Your task to perform on an android device: show emergency info Image 0: 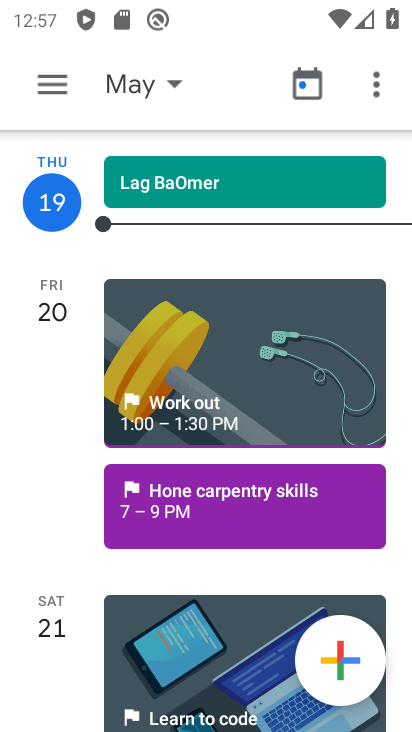
Step 0: press home button
Your task to perform on an android device: show emergency info Image 1: 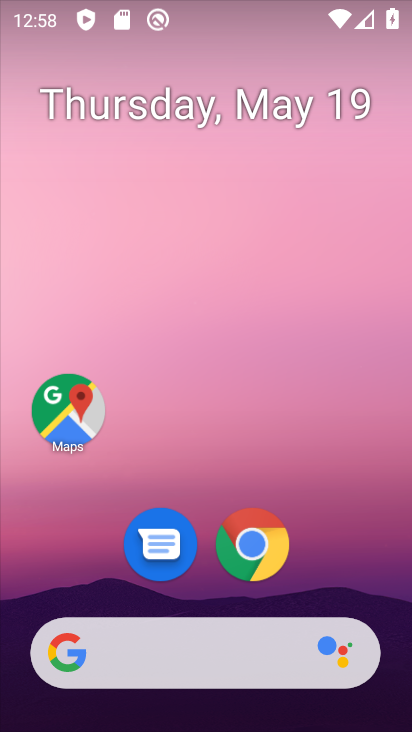
Step 1: drag from (221, 689) to (2, 212)
Your task to perform on an android device: show emergency info Image 2: 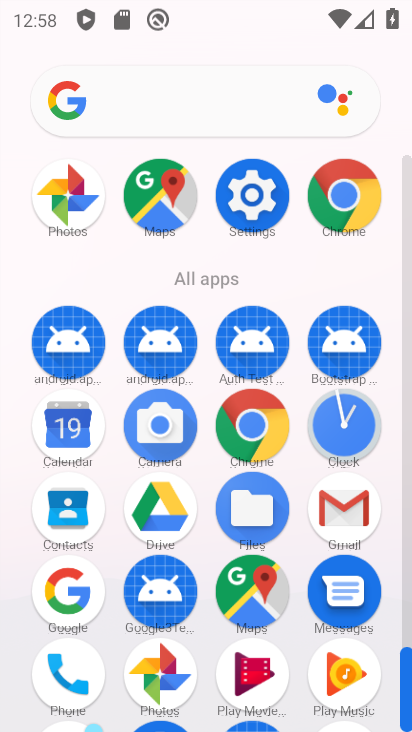
Step 2: click (259, 223)
Your task to perform on an android device: show emergency info Image 3: 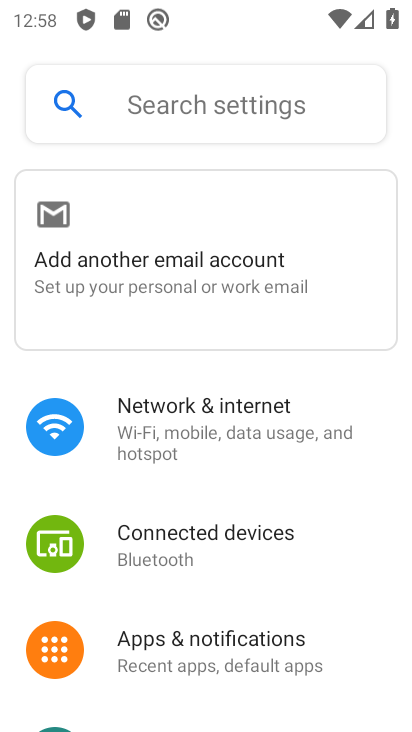
Step 3: click (180, 108)
Your task to perform on an android device: show emergency info Image 4: 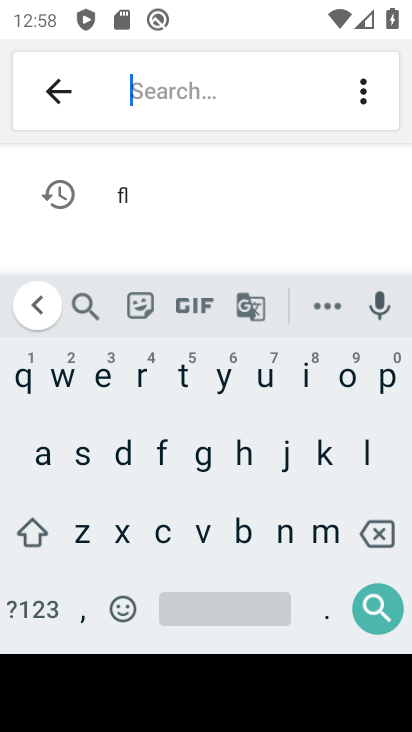
Step 4: click (102, 381)
Your task to perform on an android device: show emergency info Image 5: 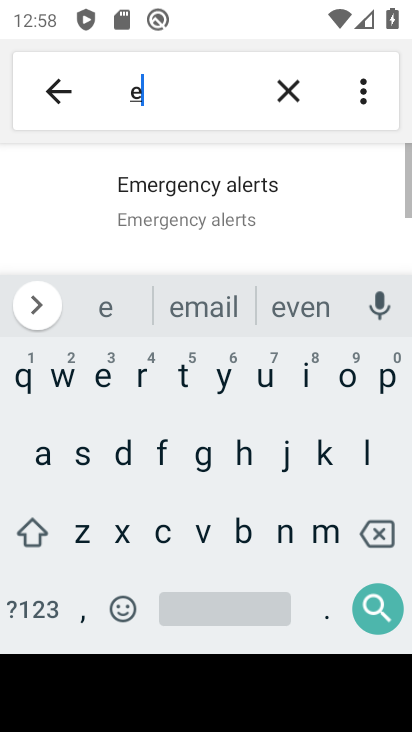
Step 5: click (320, 541)
Your task to perform on an android device: show emergency info Image 6: 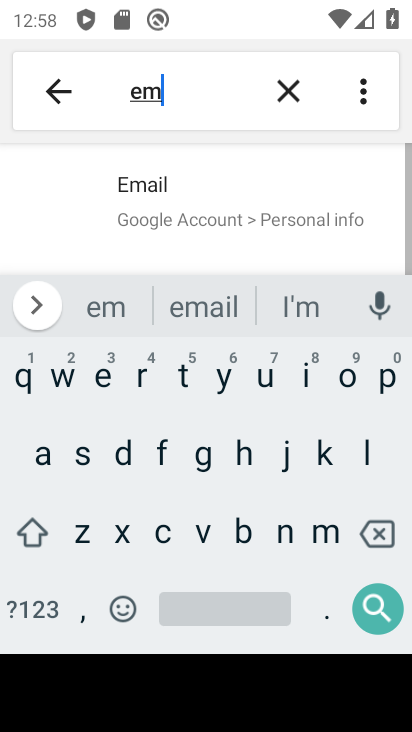
Step 6: click (105, 379)
Your task to perform on an android device: show emergency info Image 7: 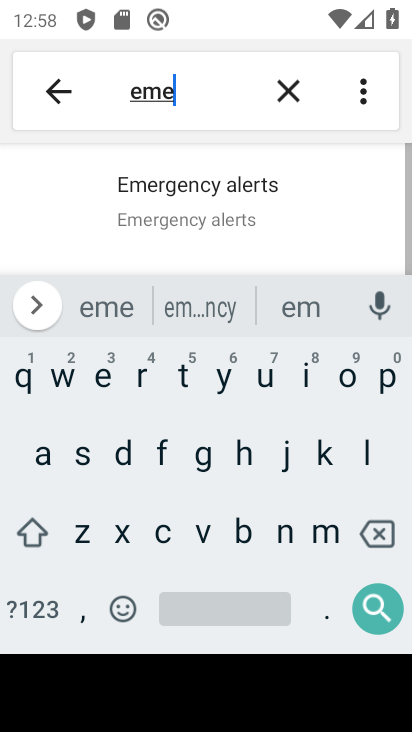
Step 7: click (140, 373)
Your task to perform on an android device: show emergency info Image 8: 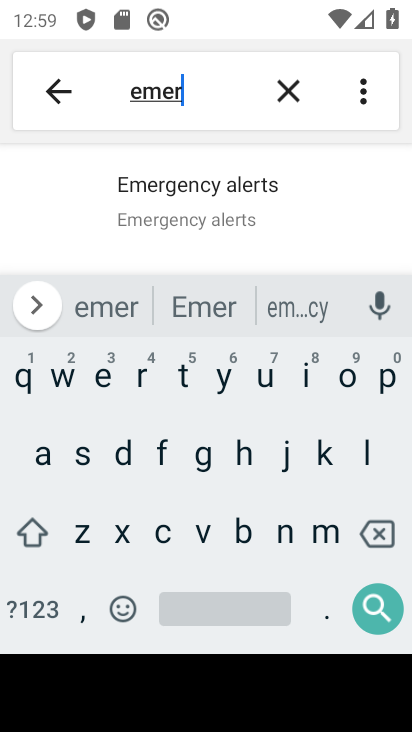
Step 8: click (281, 309)
Your task to perform on an android device: show emergency info Image 9: 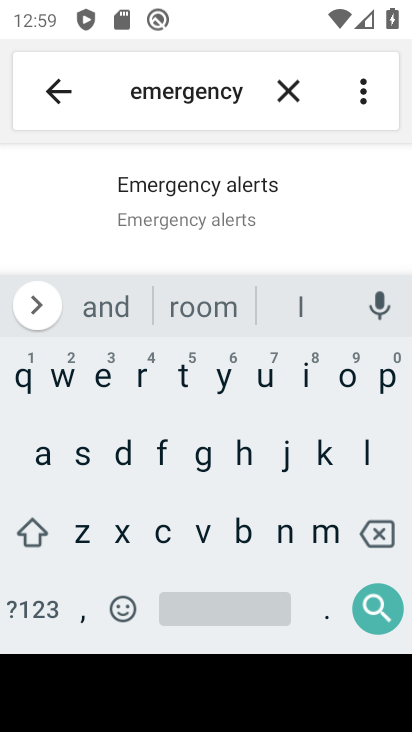
Step 9: click (307, 374)
Your task to perform on an android device: show emergency info Image 10: 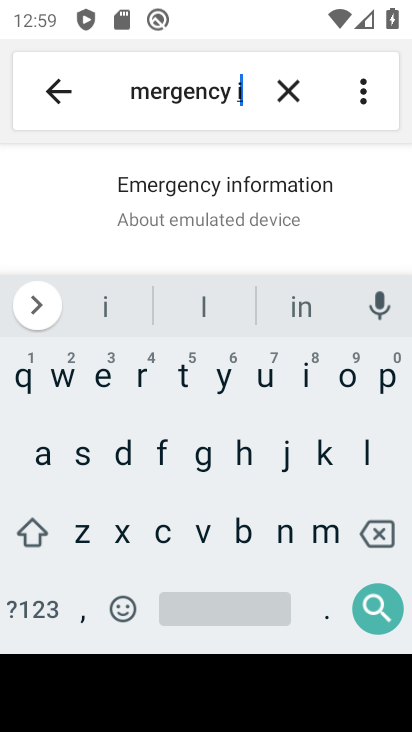
Step 10: click (283, 532)
Your task to perform on an android device: show emergency info Image 11: 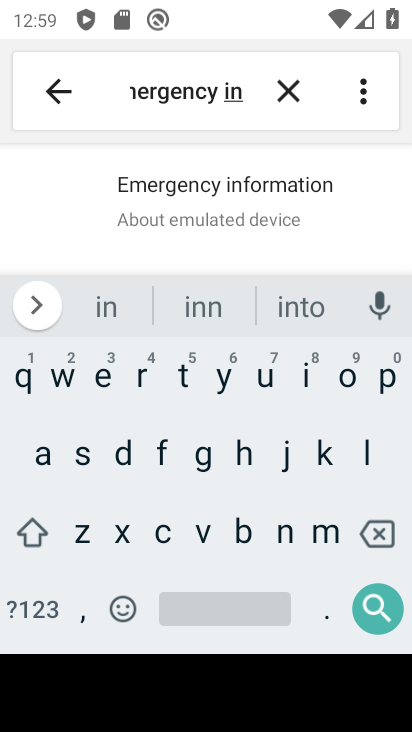
Step 11: click (235, 215)
Your task to perform on an android device: show emergency info Image 12: 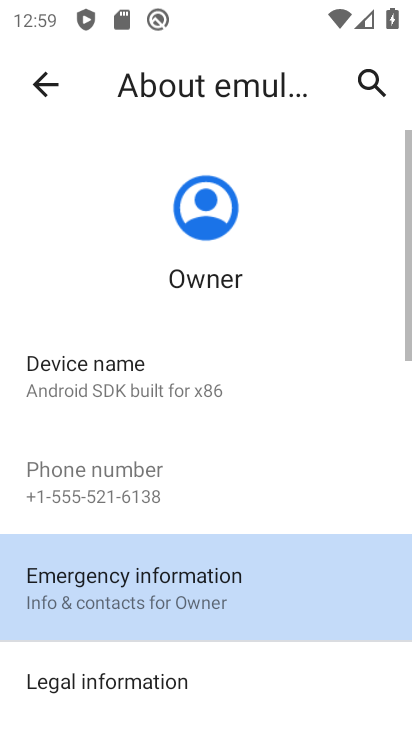
Step 12: task complete